Your task to perform on an android device: Open Reddit.com Image 0: 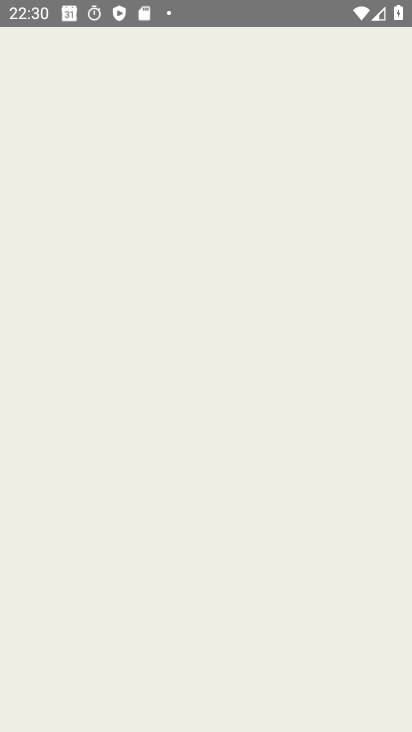
Step 0: click (350, 48)
Your task to perform on an android device: Open Reddit.com Image 1: 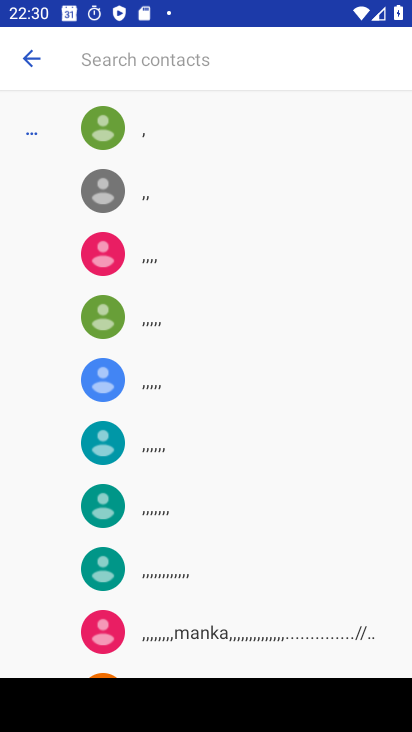
Step 1: press home button
Your task to perform on an android device: Open Reddit.com Image 2: 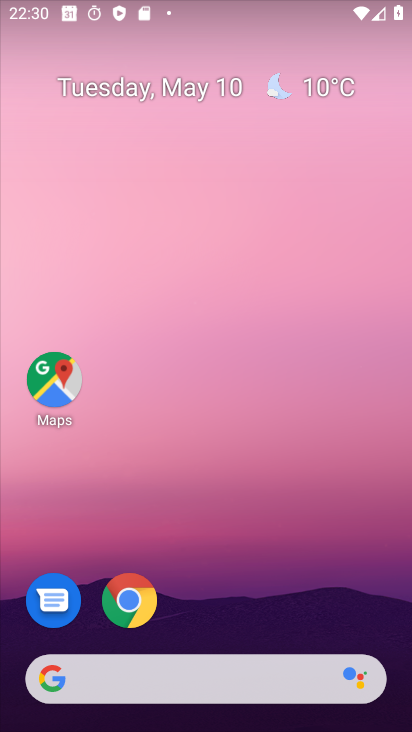
Step 2: drag from (266, 622) to (276, 14)
Your task to perform on an android device: Open Reddit.com Image 3: 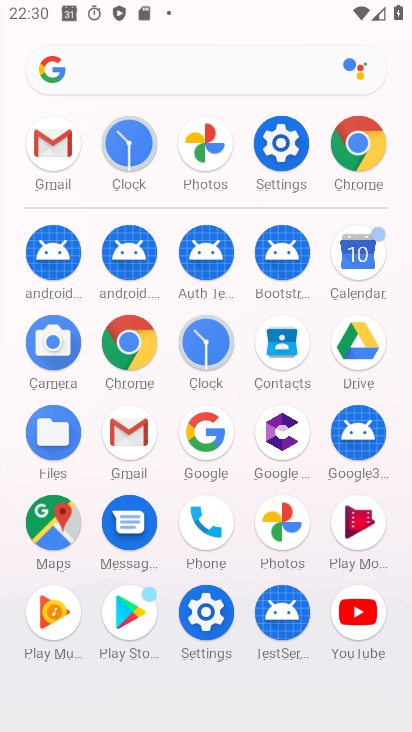
Step 3: click (118, 438)
Your task to perform on an android device: Open Reddit.com Image 4: 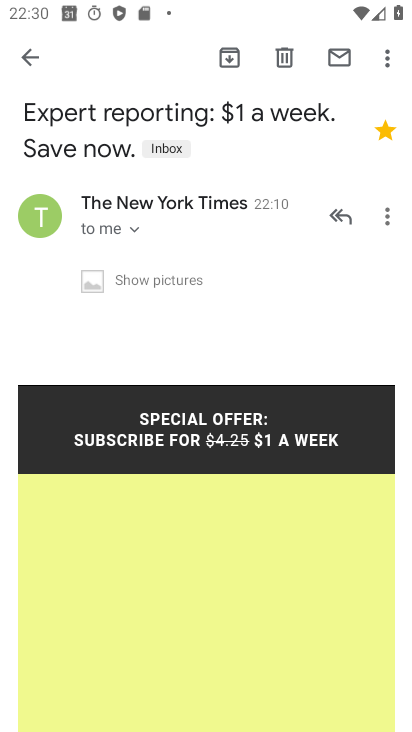
Step 4: press home button
Your task to perform on an android device: Open Reddit.com Image 5: 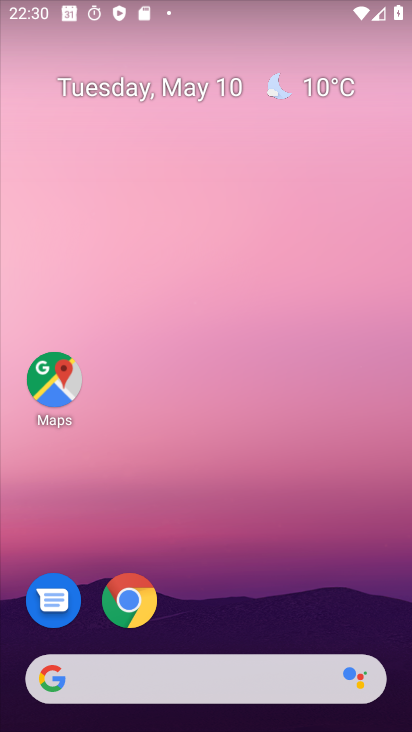
Step 5: click (137, 602)
Your task to perform on an android device: Open Reddit.com Image 6: 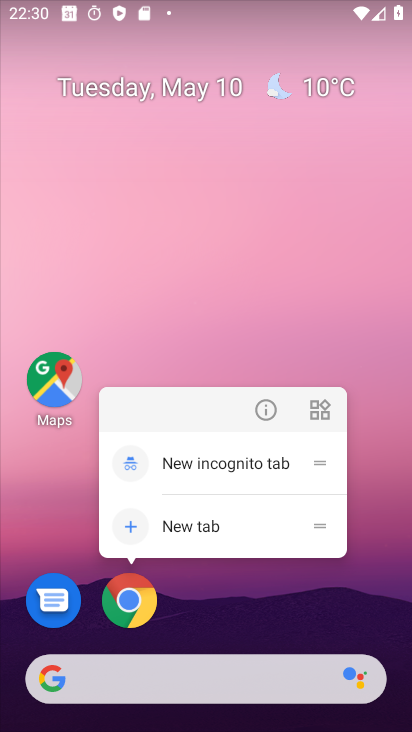
Step 6: click (137, 600)
Your task to perform on an android device: Open Reddit.com Image 7: 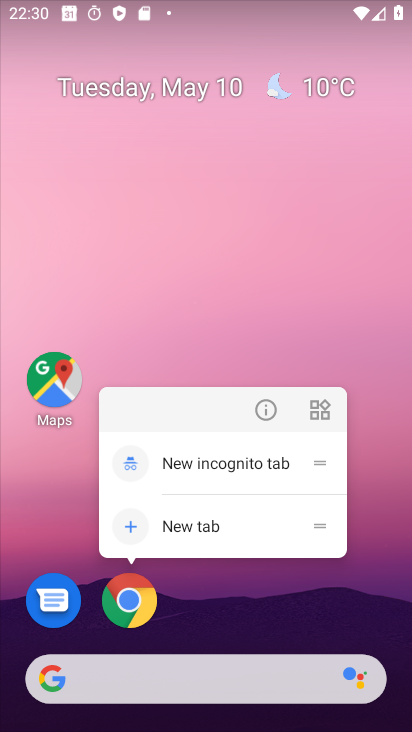
Step 7: click (137, 599)
Your task to perform on an android device: Open Reddit.com Image 8: 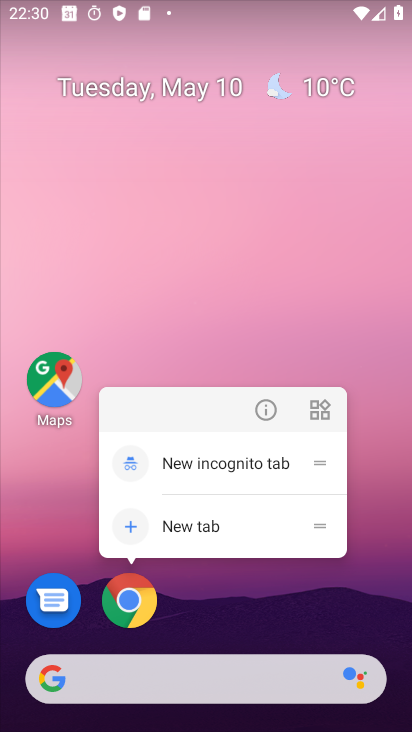
Step 8: click (137, 598)
Your task to perform on an android device: Open Reddit.com Image 9: 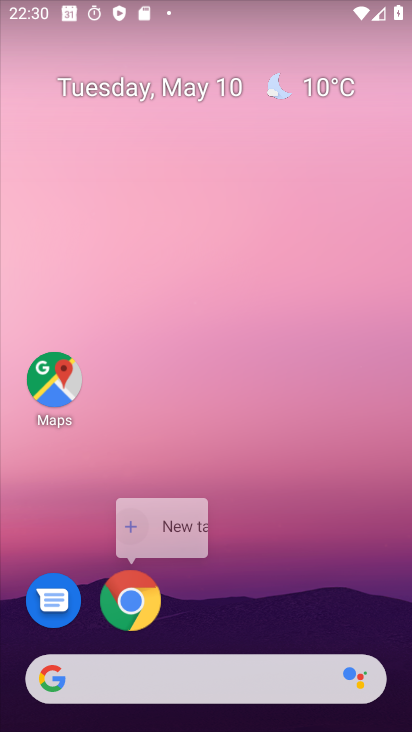
Step 9: click (229, 587)
Your task to perform on an android device: Open Reddit.com Image 10: 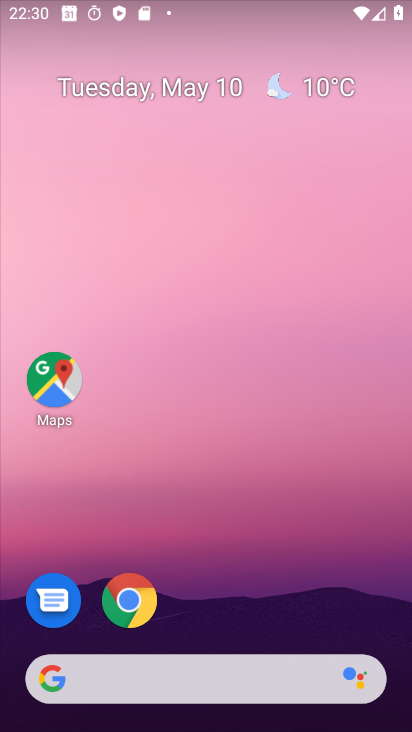
Step 10: drag from (280, 641) to (248, 89)
Your task to perform on an android device: Open Reddit.com Image 11: 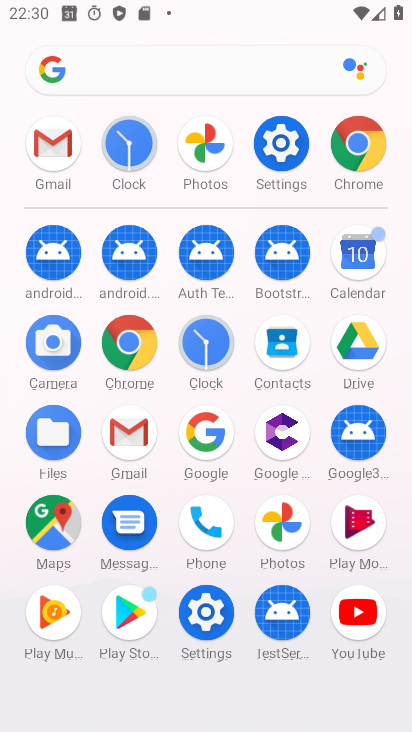
Step 11: click (377, 166)
Your task to perform on an android device: Open Reddit.com Image 12: 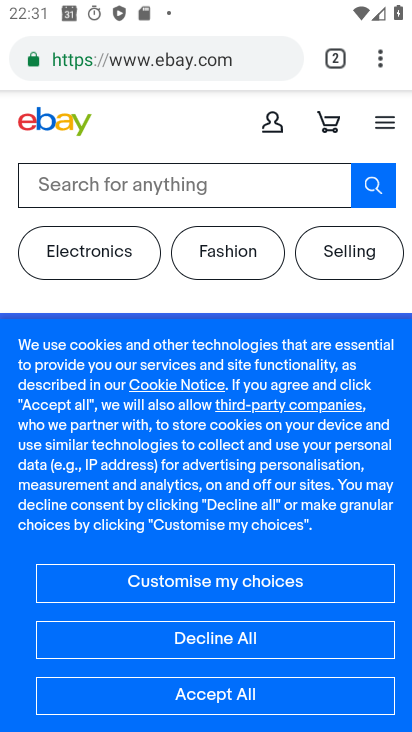
Step 12: click (196, 60)
Your task to perform on an android device: Open Reddit.com Image 13: 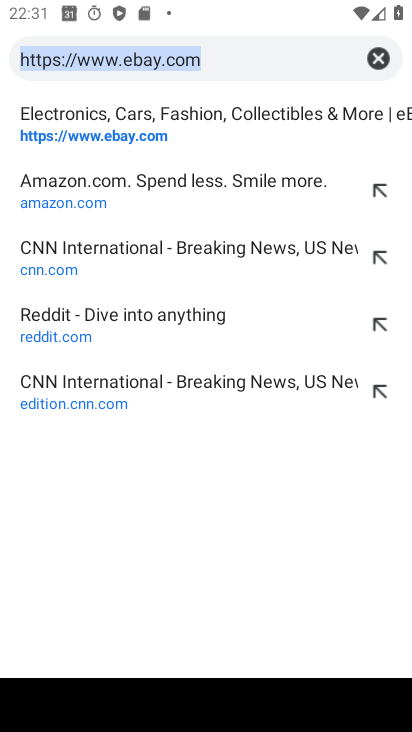
Step 13: click (375, 61)
Your task to perform on an android device: Open Reddit.com Image 14: 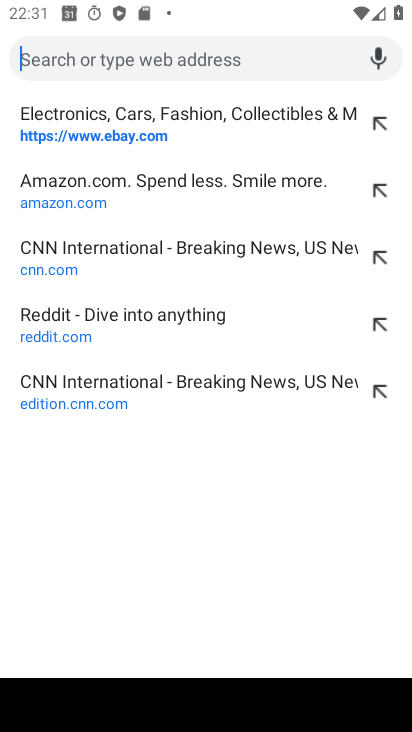
Step 14: type "reddit.com"
Your task to perform on an android device: Open Reddit.com Image 15: 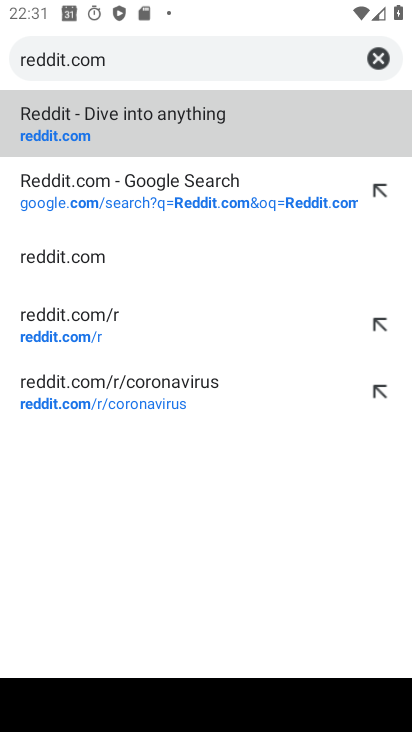
Step 15: click (128, 187)
Your task to perform on an android device: Open Reddit.com Image 16: 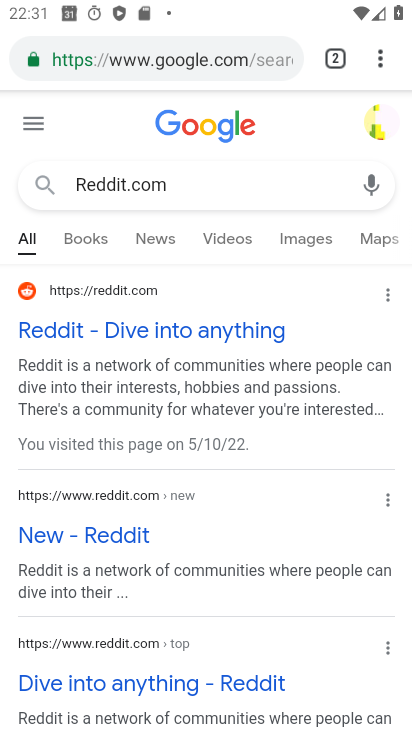
Step 16: click (91, 328)
Your task to perform on an android device: Open Reddit.com Image 17: 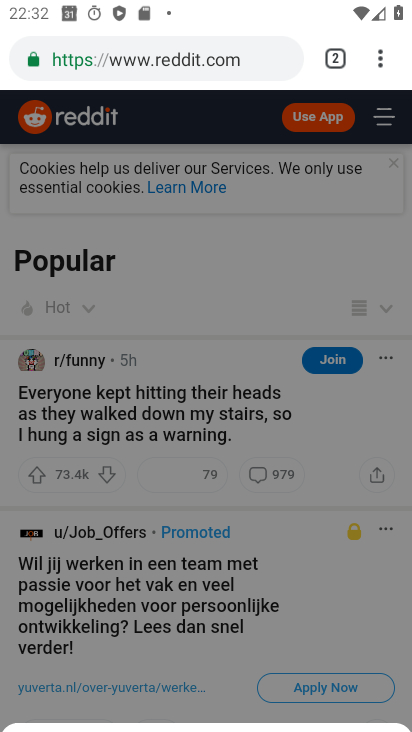
Step 17: task complete